Your task to perform on an android device: find which apps use the phone's location Image 0: 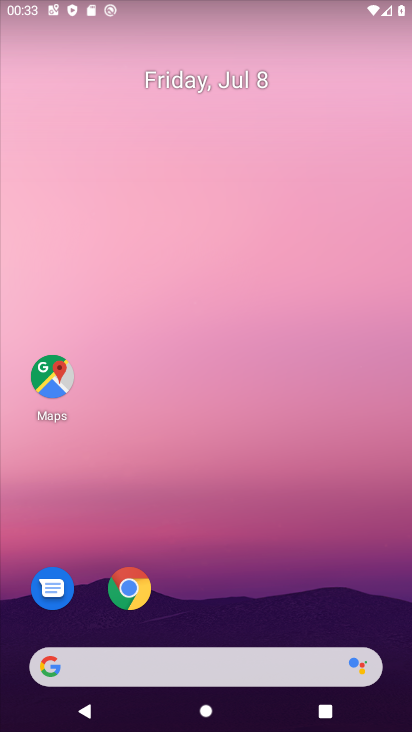
Step 0: drag from (389, 369) to (384, 290)
Your task to perform on an android device: find which apps use the phone's location Image 1: 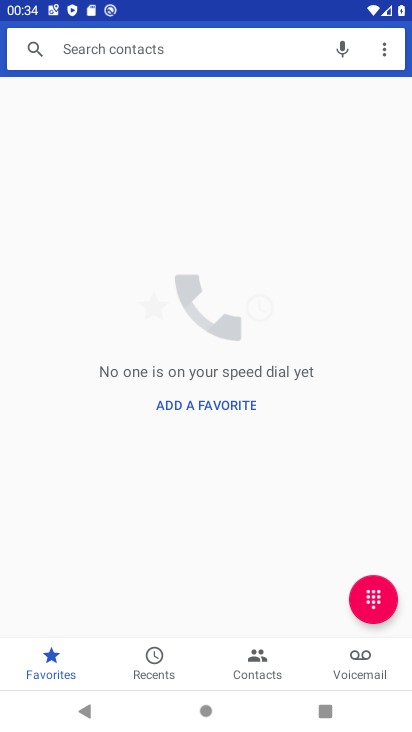
Step 1: drag from (180, 569) to (319, 165)
Your task to perform on an android device: find which apps use the phone's location Image 2: 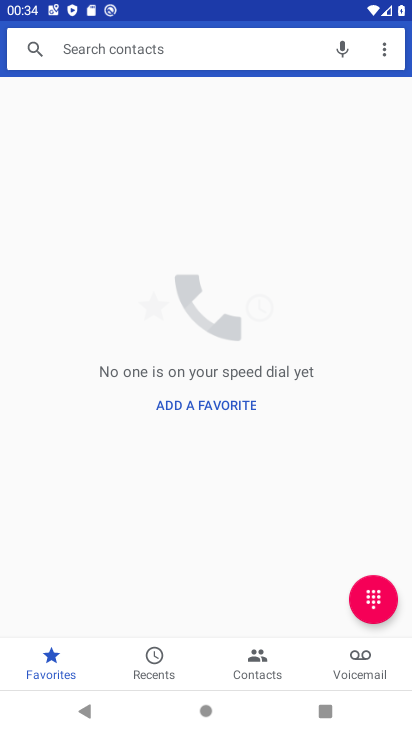
Step 2: press home button
Your task to perform on an android device: find which apps use the phone's location Image 3: 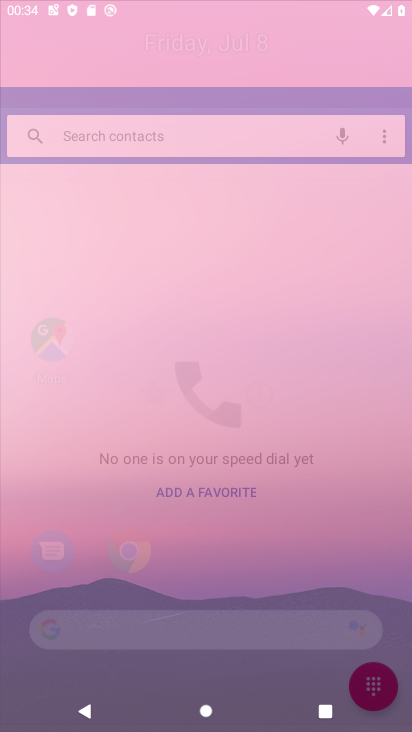
Step 3: drag from (171, 621) to (177, 77)
Your task to perform on an android device: find which apps use the phone's location Image 4: 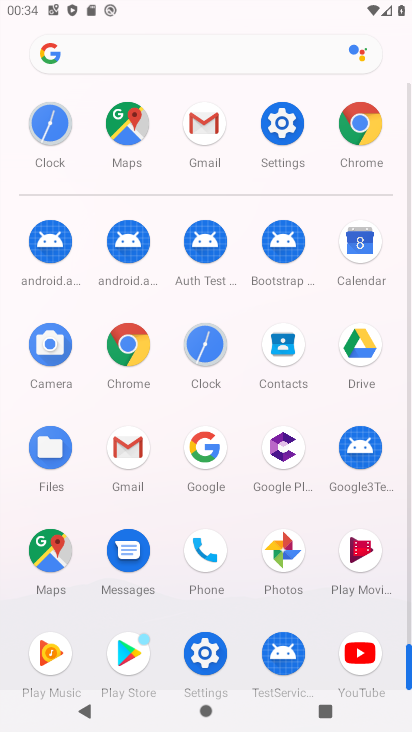
Step 4: click (38, 548)
Your task to perform on an android device: find which apps use the phone's location Image 5: 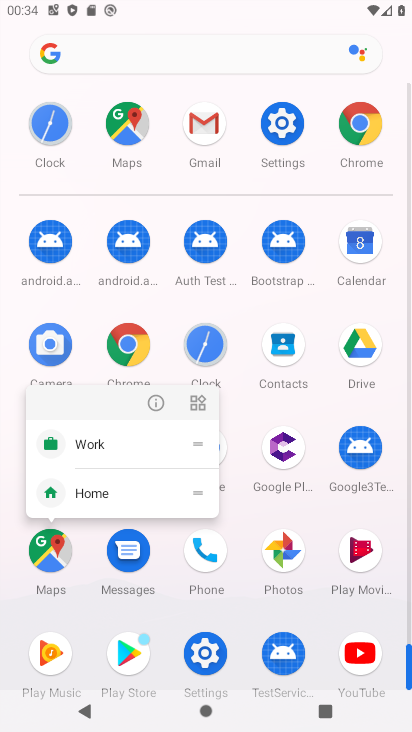
Step 5: click (287, 134)
Your task to perform on an android device: find which apps use the phone's location Image 6: 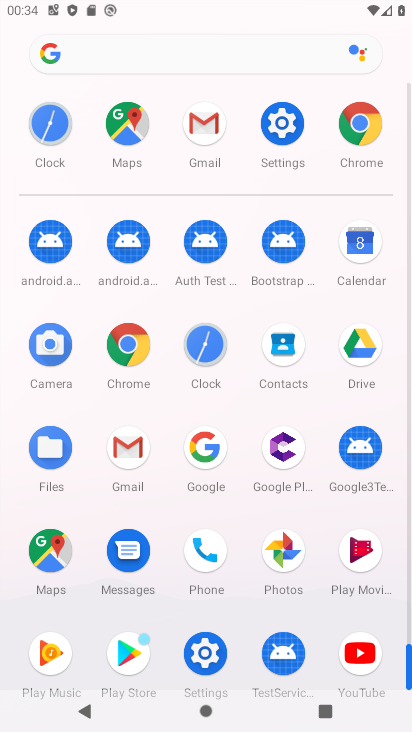
Step 6: click (273, 125)
Your task to perform on an android device: find which apps use the phone's location Image 7: 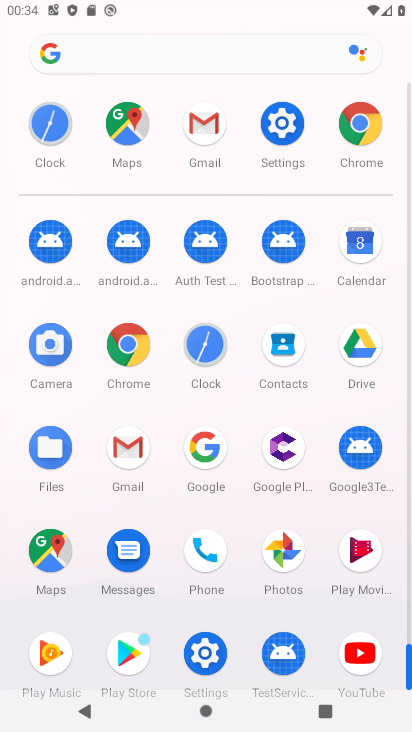
Step 7: click (273, 125)
Your task to perform on an android device: find which apps use the phone's location Image 8: 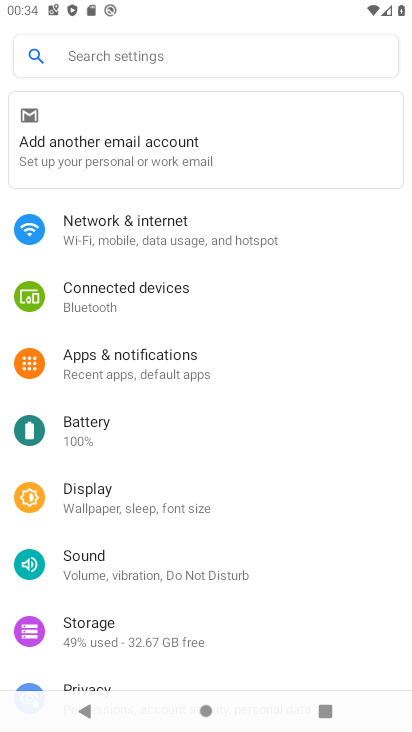
Step 8: drag from (154, 611) to (334, 256)
Your task to perform on an android device: find which apps use the phone's location Image 9: 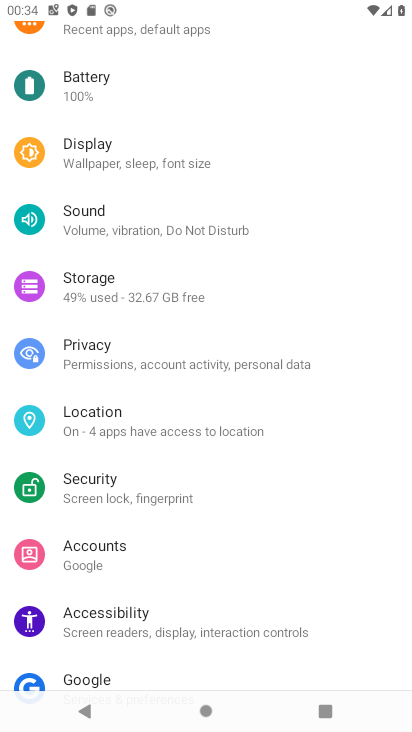
Step 9: click (115, 420)
Your task to perform on an android device: find which apps use the phone's location Image 10: 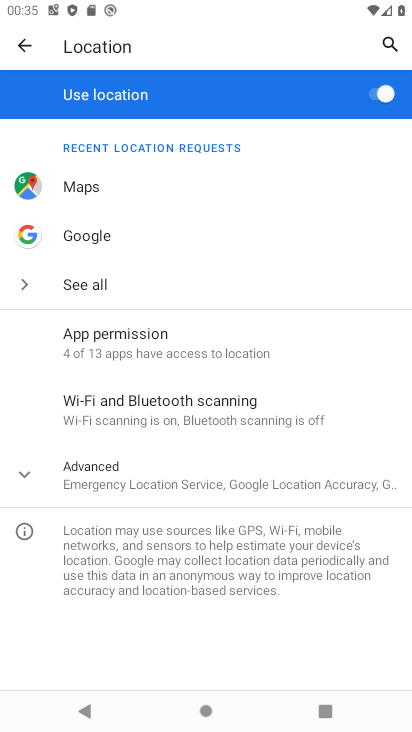
Step 10: drag from (212, 577) to (236, 285)
Your task to perform on an android device: find which apps use the phone's location Image 11: 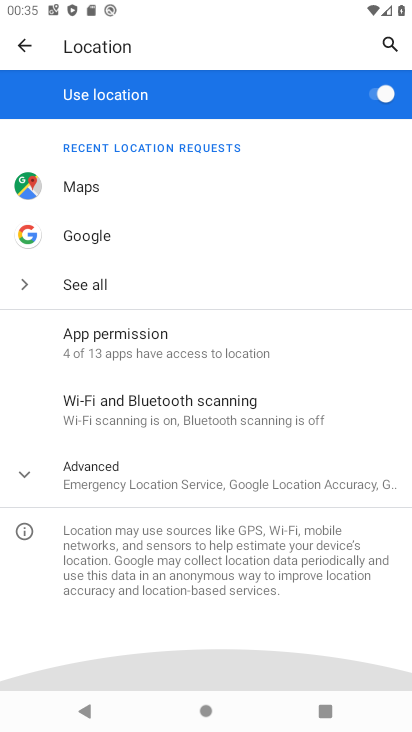
Step 11: drag from (223, 292) to (394, 525)
Your task to perform on an android device: find which apps use the phone's location Image 12: 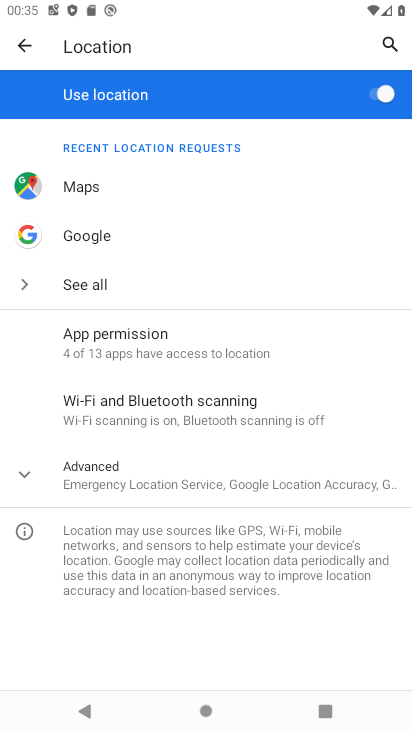
Step 12: drag from (173, 605) to (240, 358)
Your task to perform on an android device: find which apps use the phone's location Image 13: 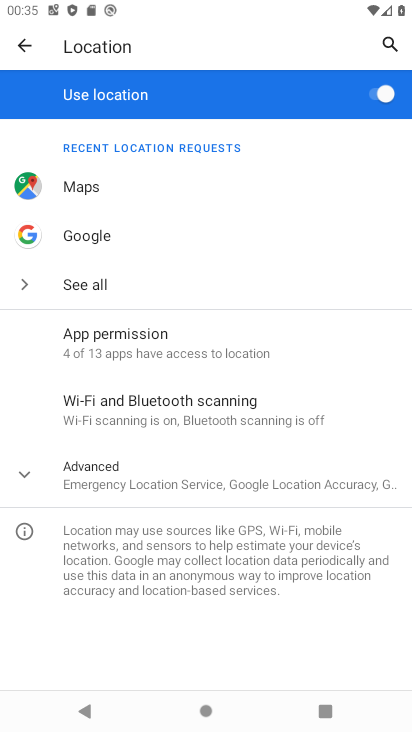
Step 13: click (131, 349)
Your task to perform on an android device: find which apps use the phone's location Image 14: 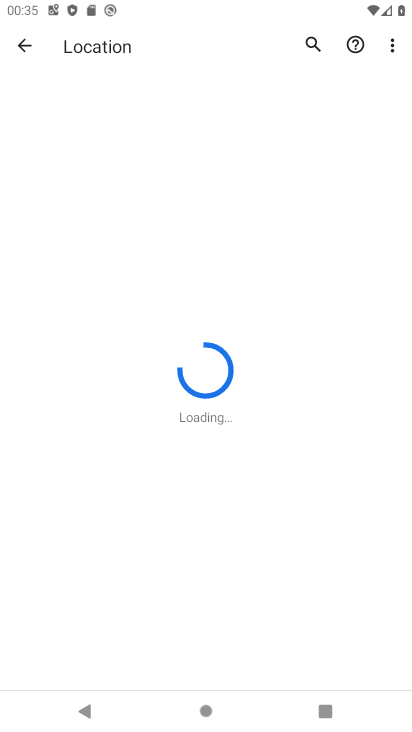
Step 14: task complete